Your task to perform on an android device: How much does a 3 bedroom apartment rent for in Washington DC? Image 0: 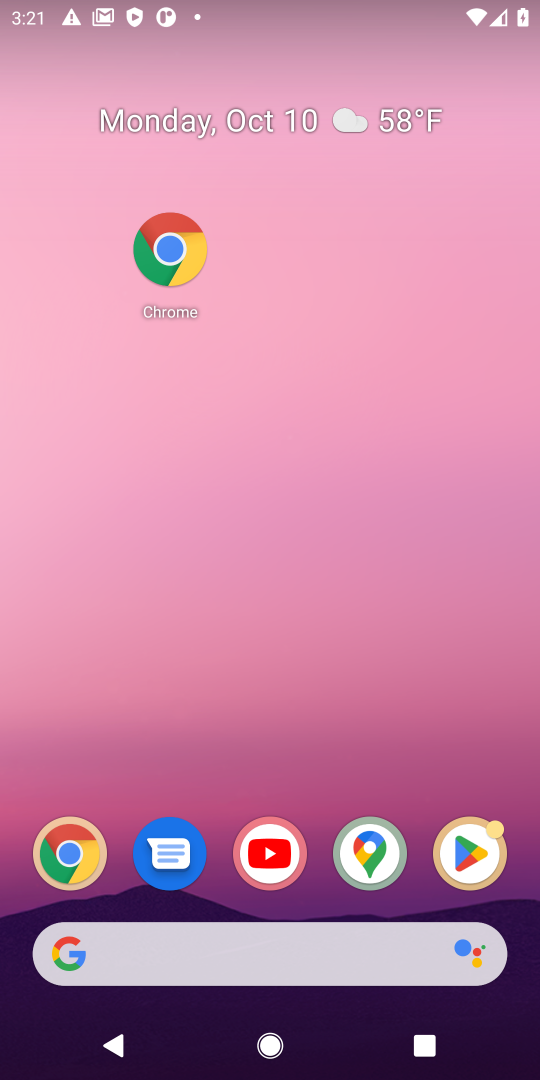
Step 0: click (167, 253)
Your task to perform on an android device: How much does a 3 bedroom apartment rent for in Washington DC? Image 1: 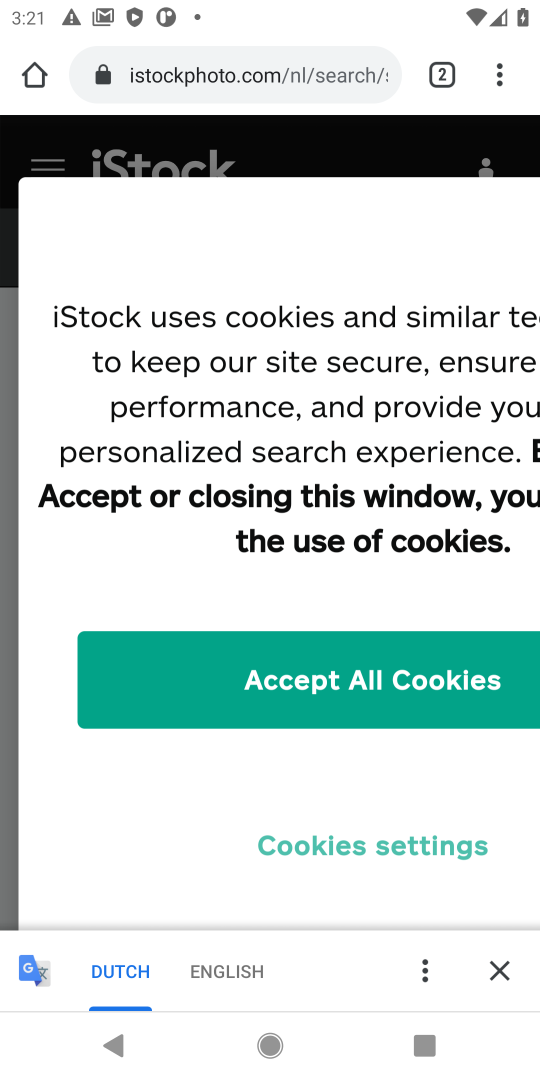
Step 1: click (295, 83)
Your task to perform on an android device: How much does a 3 bedroom apartment rent for in Washington DC? Image 2: 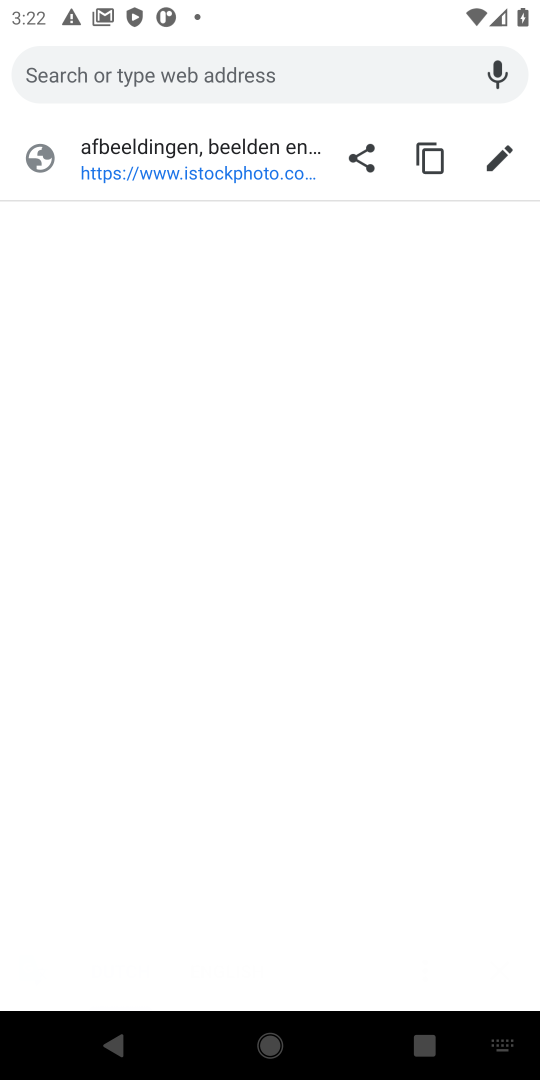
Step 2: type "How much does a 3 bedroom apartment rent for in Washington DC?"
Your task to perform on an android device: How much does a 3 bedroom apartment rent for in Washington DC? Image 3: 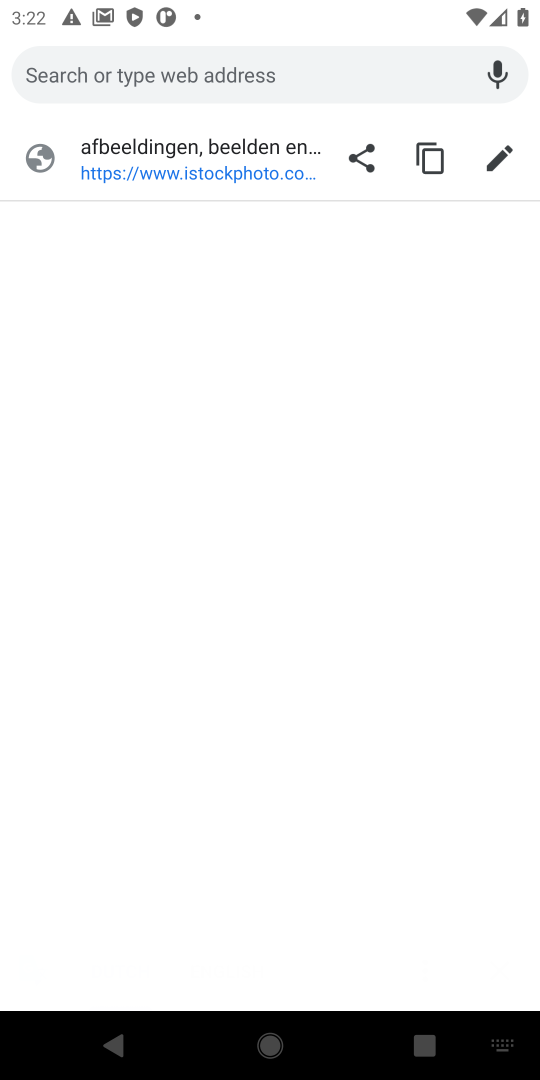
Step 3: click (379, 74)
Your task to perform on an android device: How much does a 3 bedroom apartment rent for in Washington DC? Image 4: 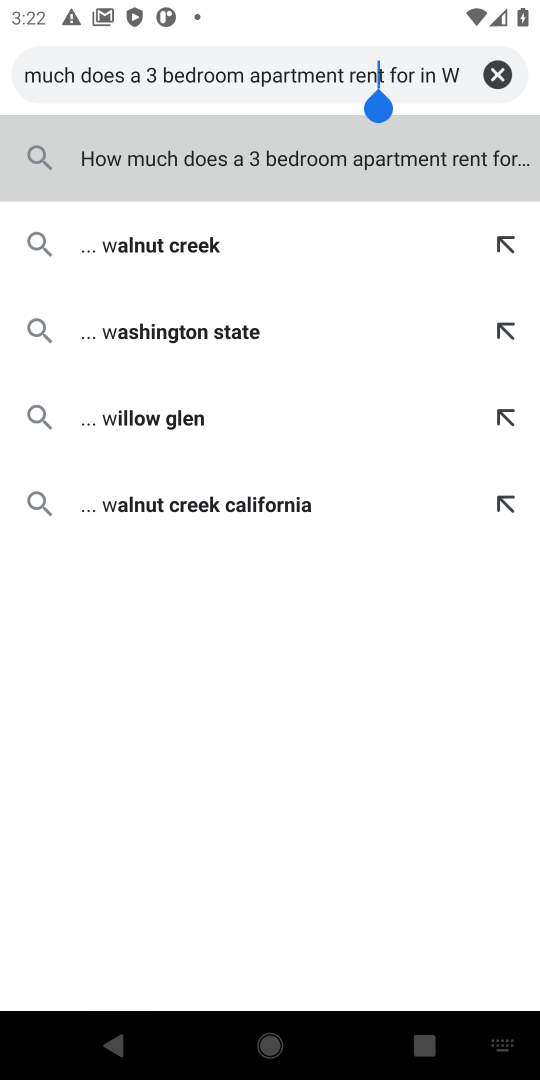
Step 4: click (344, 169)
Your task to perform on an android device: How much does a 3 bedroom apartment rent for in Washington DC? Image 5: 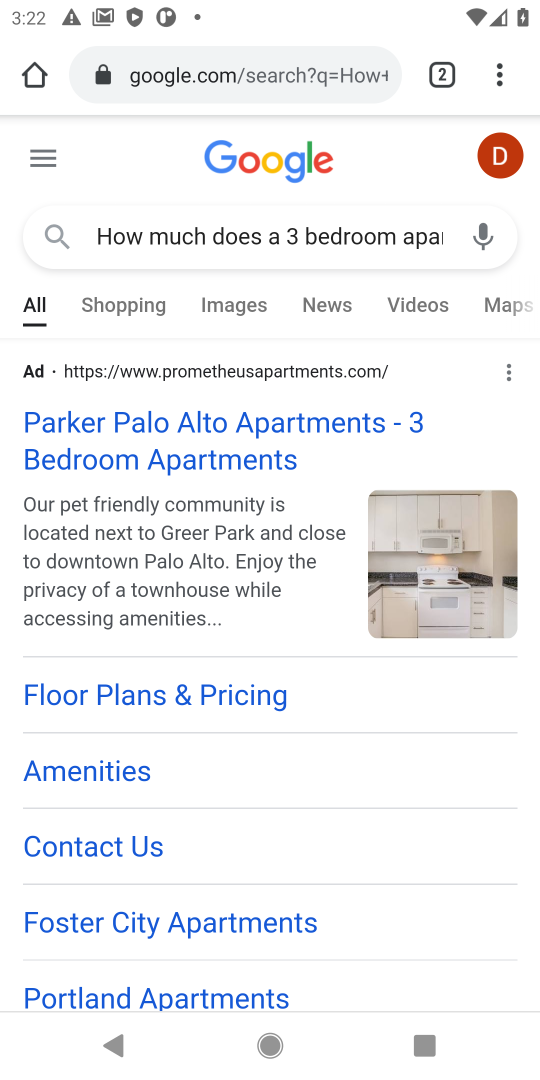
Step 5: click (296, 437)
Your task to perform on an android device: How much does a 3 bedroom apartment rent for in Washington DC? Image 6: 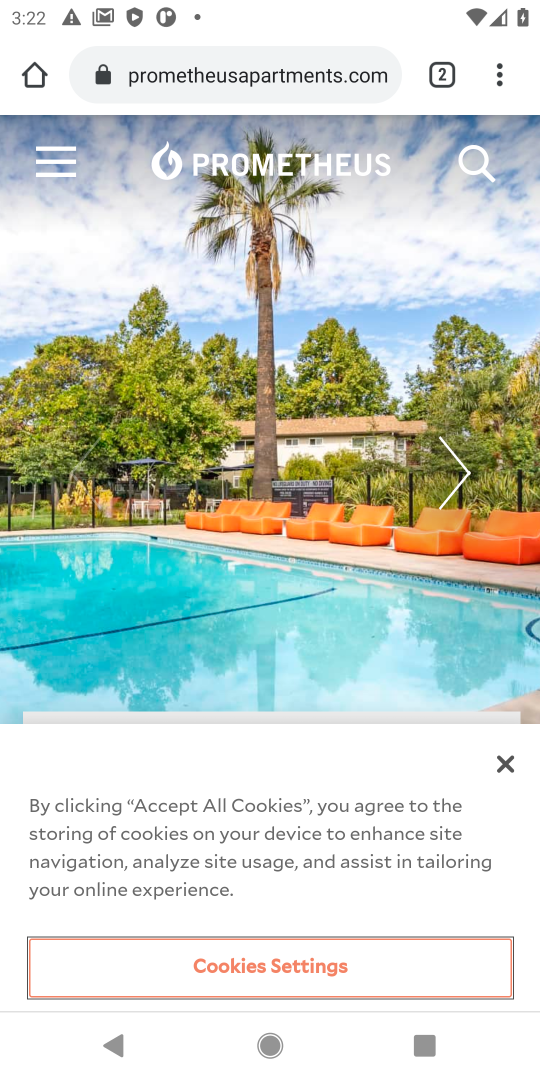
Step 6: task complete